Your task to perform on an android device: Search for vegetarian restaurants on Maps Image 0: 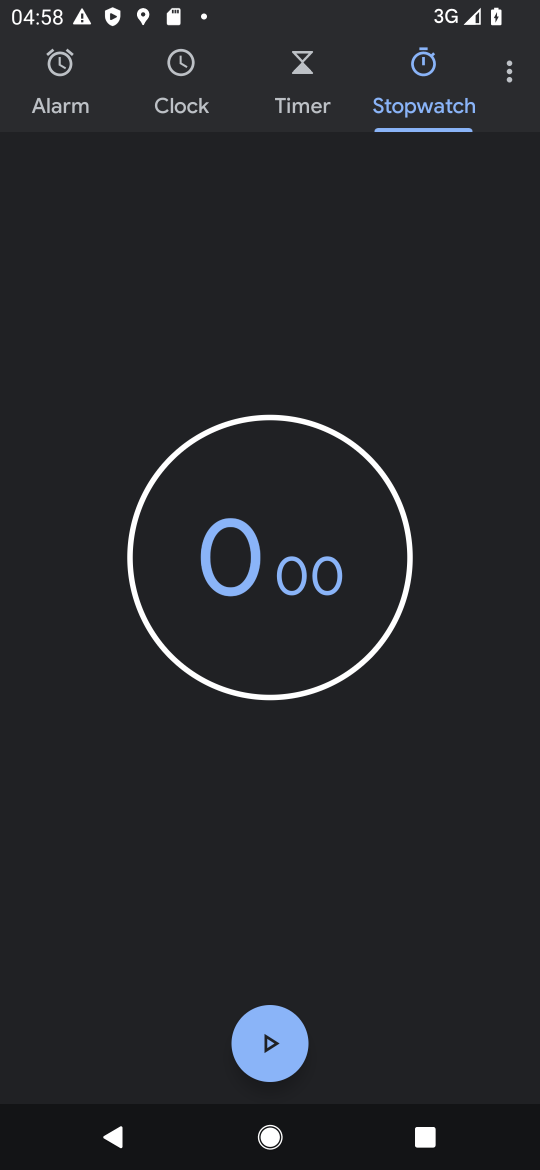
Step 0: press home button
Your task to perform on an android device: Search for vegetarian restaurants on Maps Image 1: 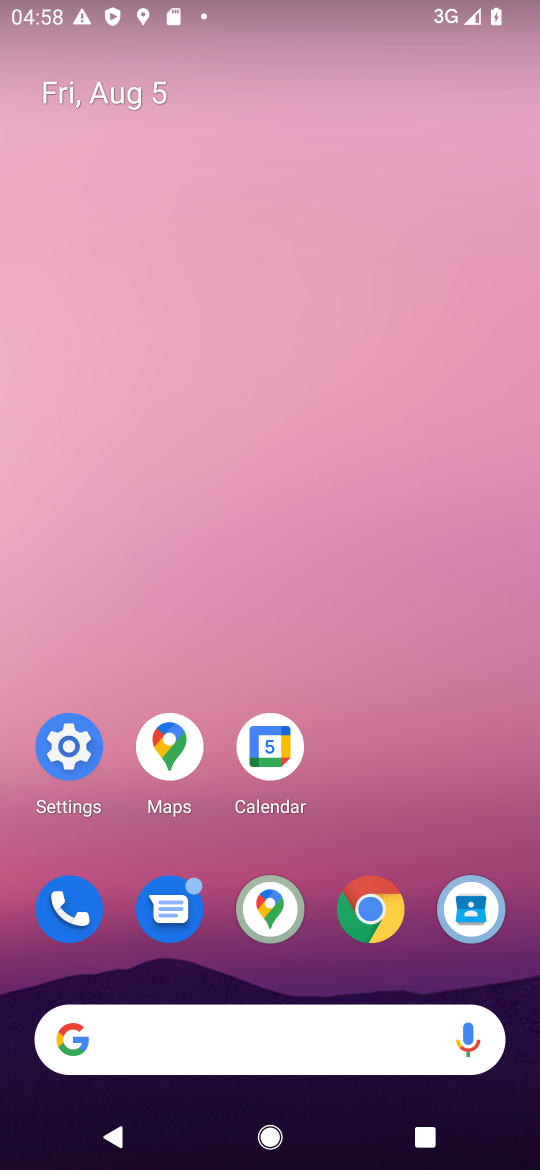
Step 1: click (166, 747)
Your task to perform on an android device: Search for vegetarian restaurants on Maps Image 2: 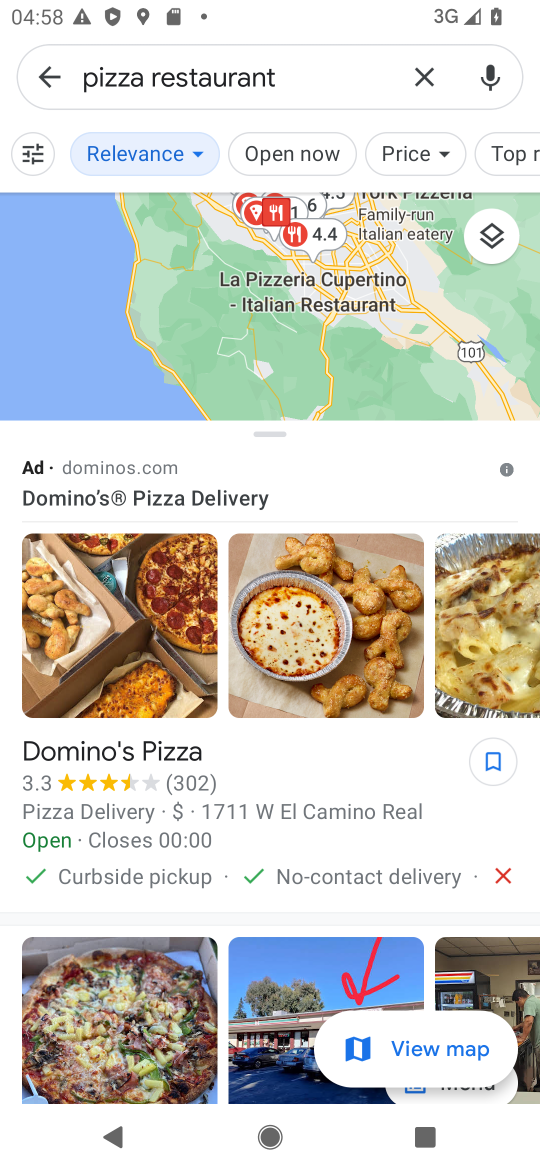
Step 2: click (422, 74)
Your task to perform on an android device: Search for vegetarian restaurants on Maps Image 3: 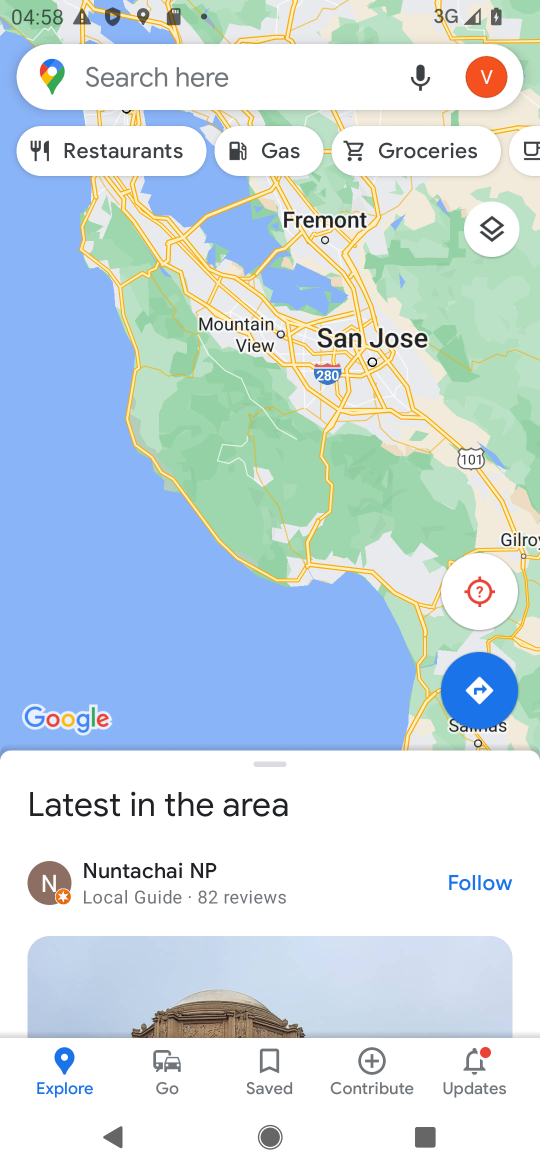
Step 3: click (294, 74)
Your task to perform on an android device: Search for vegetarian restaurants on Maps Image 4: 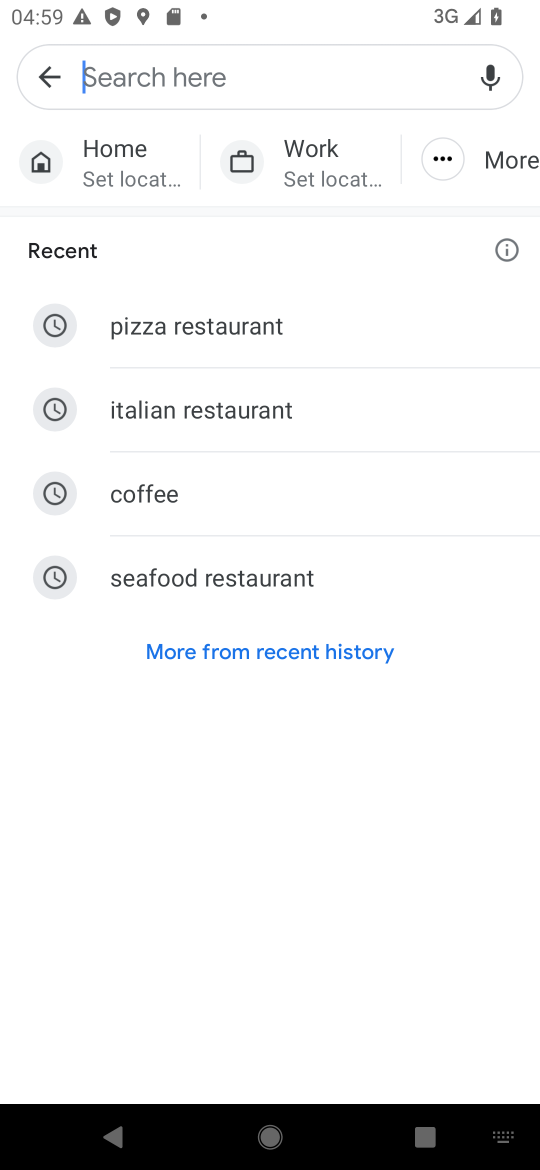
Step 4: type "vegetarian"
Your task to perform on an android device: Search for vegetarian restaurants on Maps Image 5: 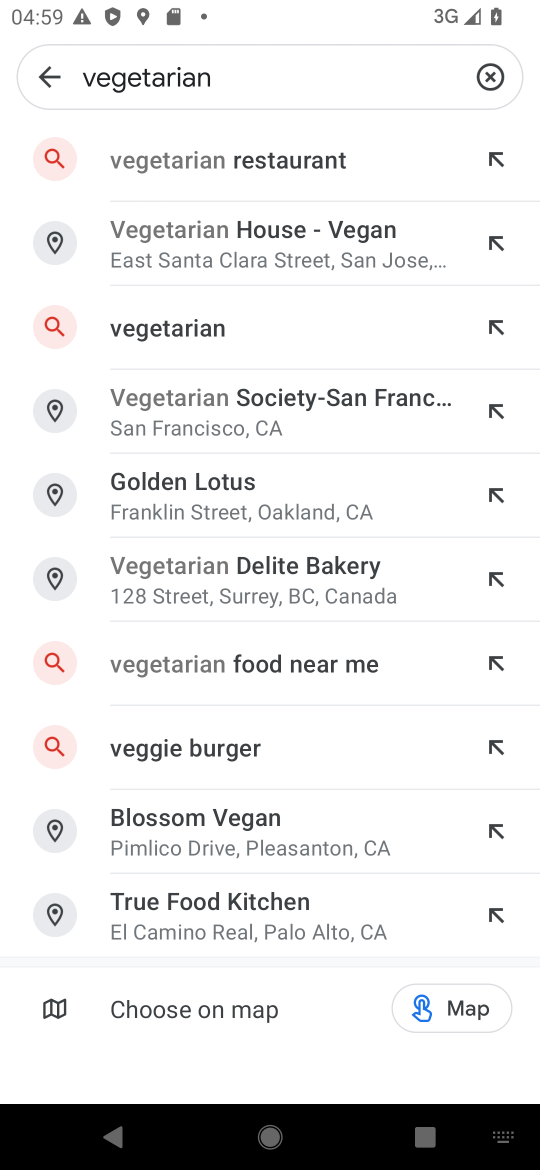
Step 5: click (217, 158)
Your task to perform on an android device: Search for vegetarian restaurants on Maps Image 6: 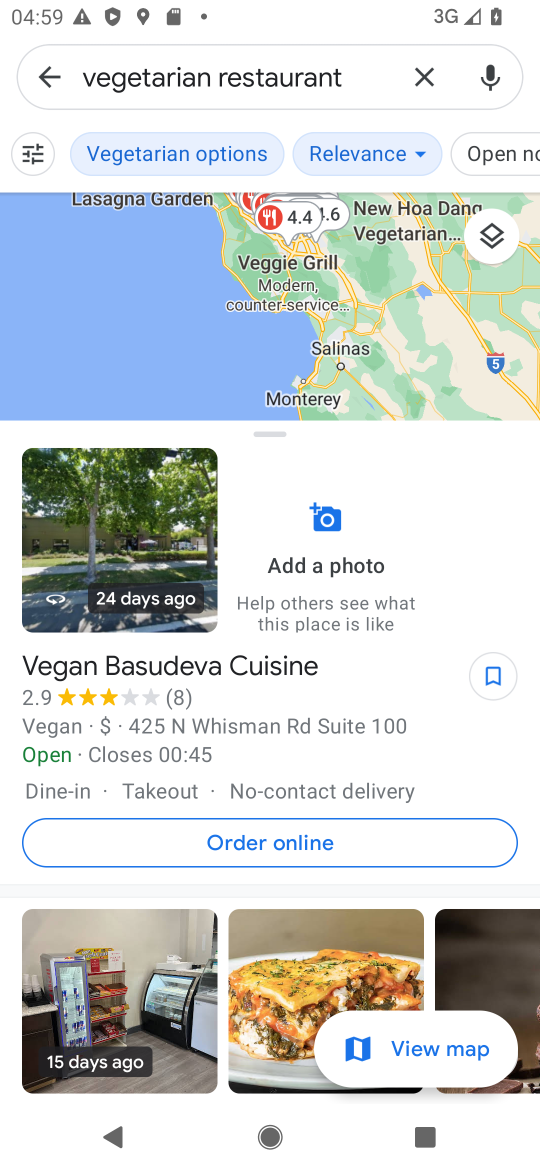
Step 6: task complete